Your task to perform on an android device: turn pop-ups on in chrome Image 0: 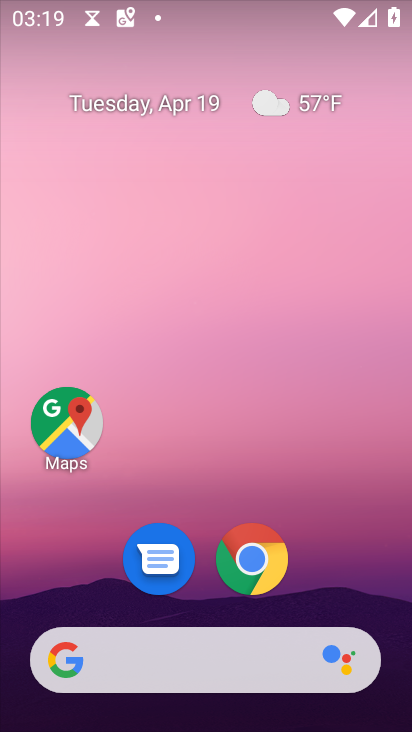
Step 0: click (258, 564)
Your task to perform on an android device: turn pop-ups on in chrome Image 1: 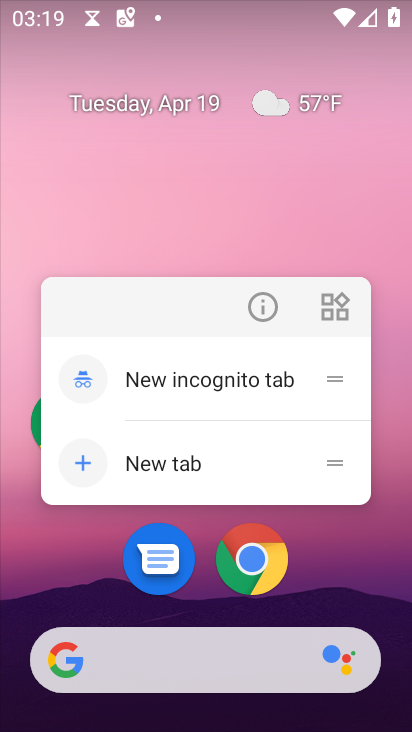
Step 1: click (214, 180)
Your task to perform on an android device: turn pop-ups on in chrome Image 2: 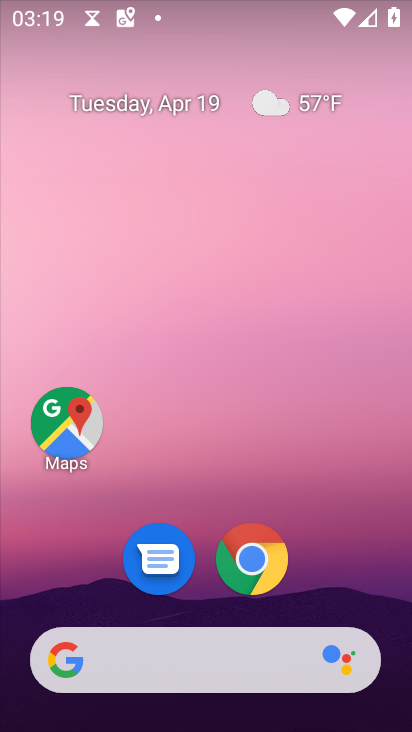
Step 2: click (244, 550)
Your task to perform on an android device: turn pop-ups on in chrome Image 3: 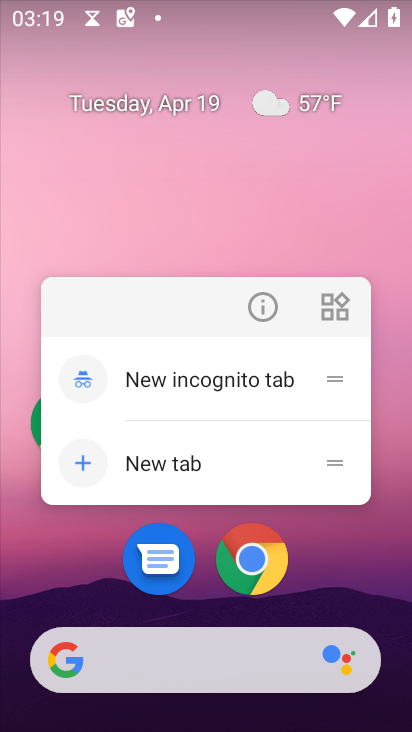
Step 3: click (244, 550)
Your task to perform on an android device: turn pop-ups on in chrome Image 4: 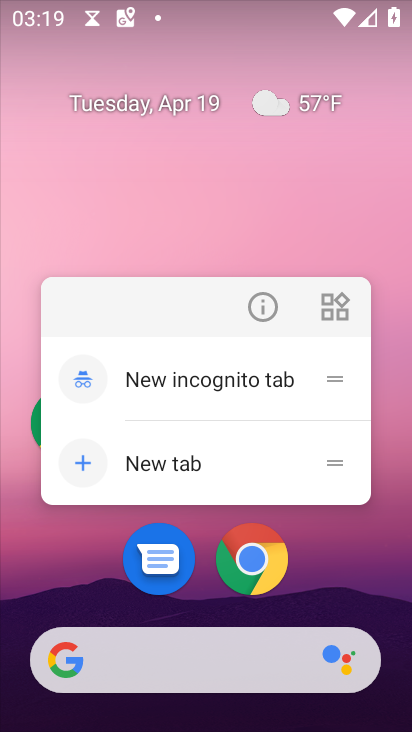
Step 4: click (180, 158)
Your task to perform on an android device: turn pop-ups on in chrome Image 5: 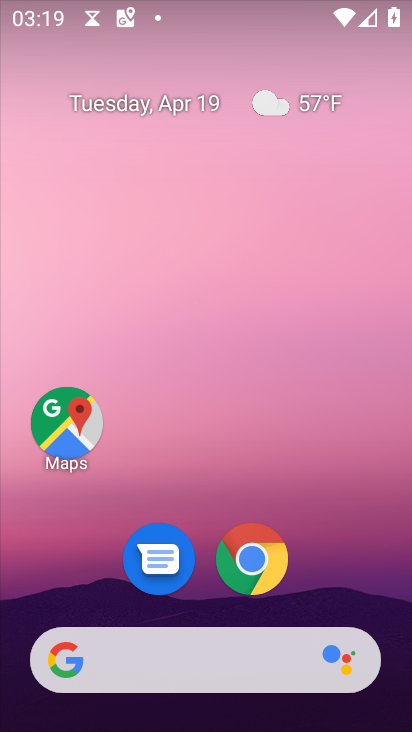
Step 5: drag from (212, 476) to (205, 118)
Your task to perform on an android device: turn pop-ups on in chrome Image 6: 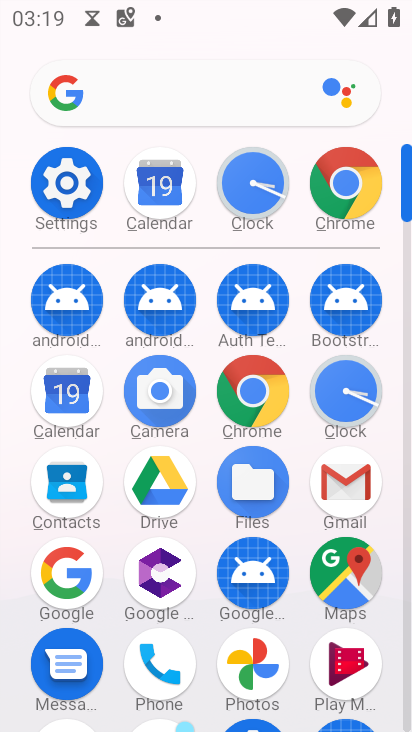
Step 6: click (249, 383)
Your task to perform on an android device: turn pop-ups on in chrome Image 7: 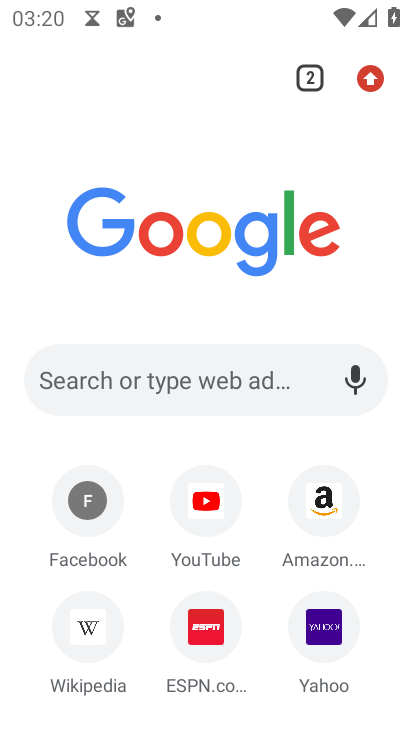
Step 7: click (367, 81)
Your task to perform on an android device: turn pop-ups on in chrome Image 8: 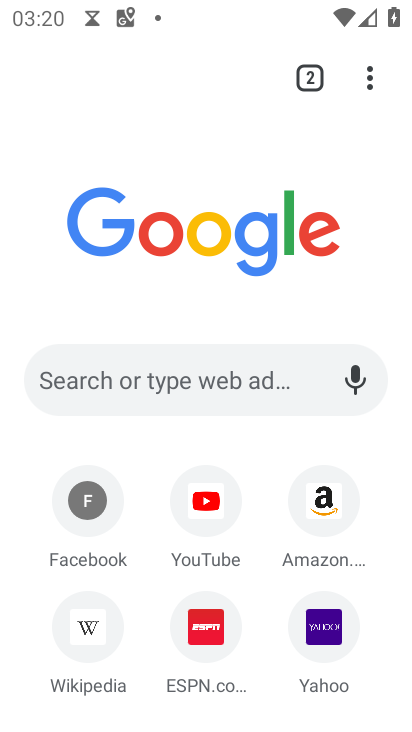
Step 8: click (366, 74)
Your task to perform on an android device: turn pop-ups on in chrome Image 9: 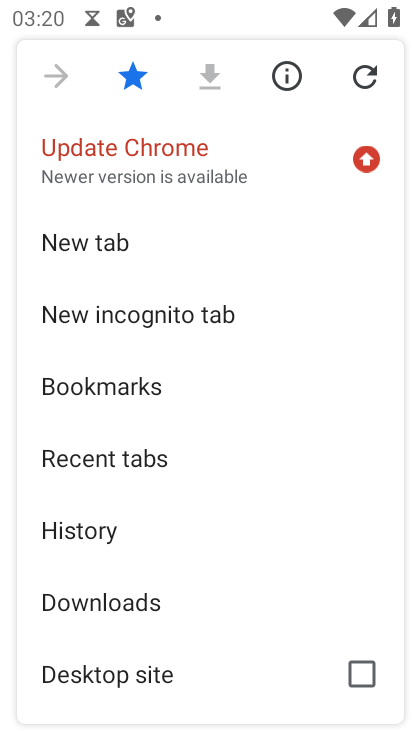
Step 9: drag from (181, 653) to (209, 111)
Your task to perform on an android device: turn pop-ups on in chrome Image 10: 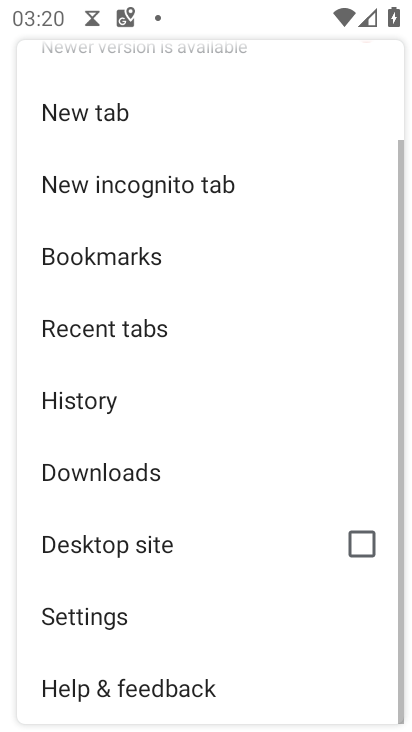
Step 10: click (147, 617)
Your task to perform on an android device: turn pop-ups on in chrome Image 11: 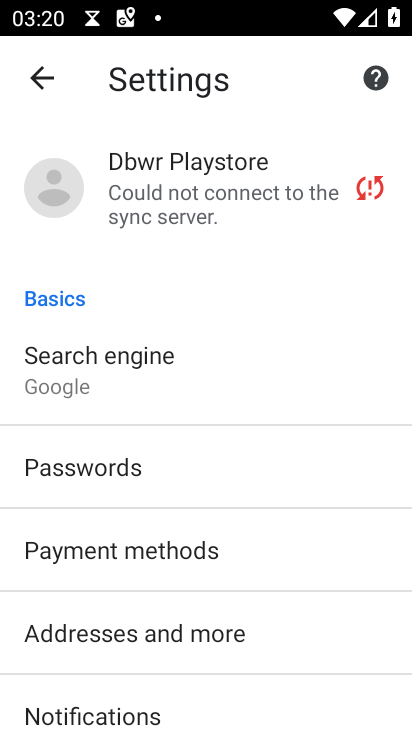
Step 11: drag from (200, 679) to (206, 183)
Your task to perform on an android device: turn pop-ups on in chrome Image 12: 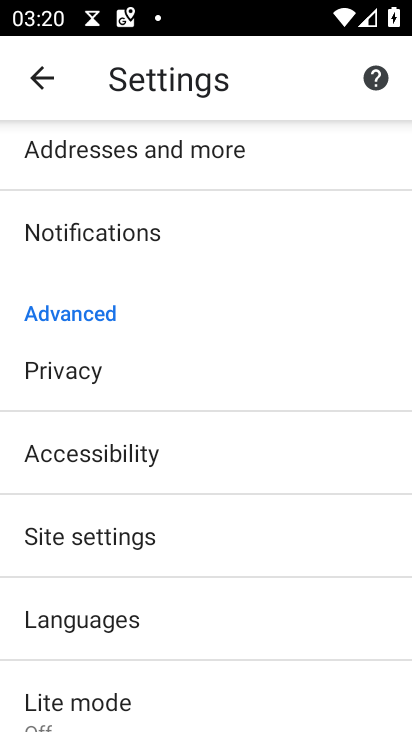
Step 12: click (176, 537)
Your task to perform on an android device: turn pop-ups on in chrome Image 13: 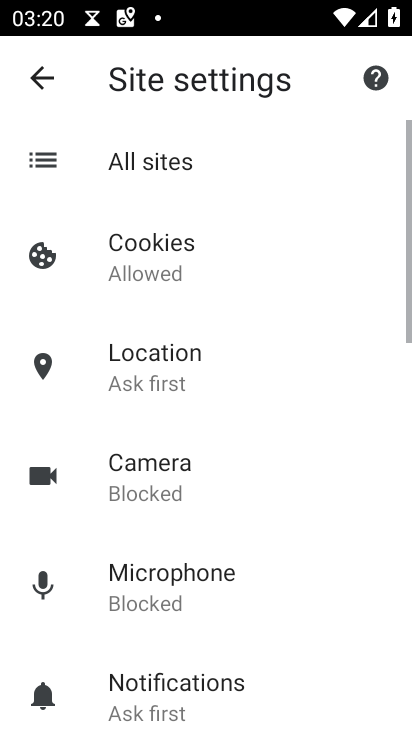
Step 13: drag from (223, 640) to (231, 96)
Your task to perform on an android device: turn pop-ups on in chrome Image 14: 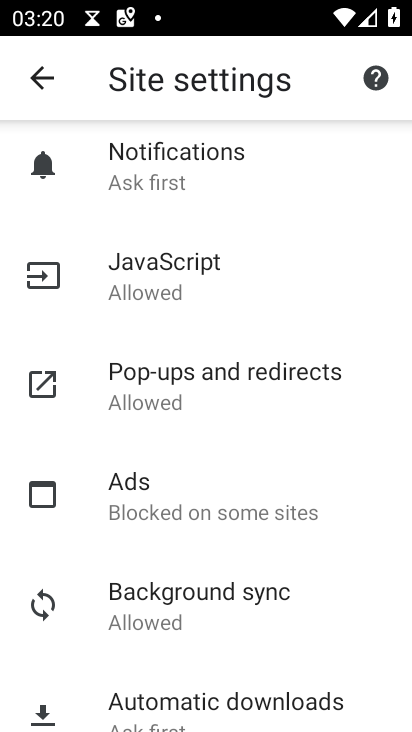
Step 14: click (189, 398)
Your task to perform on an android device: turn pop-ups on in chrome Image 15: 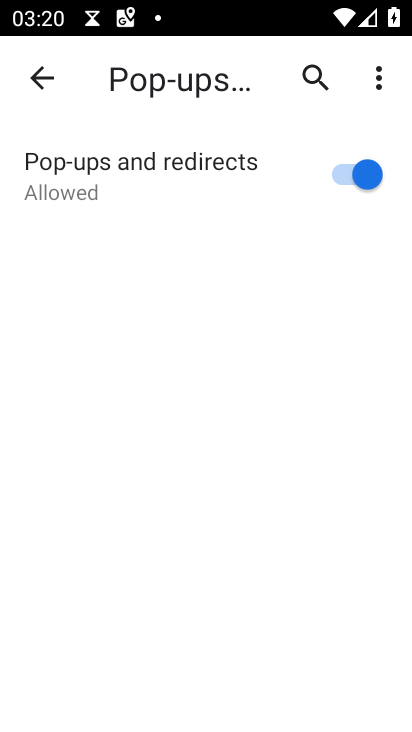
Step 15: task complete